Your task to perform on an android device: Open the stopwatch Image 0: 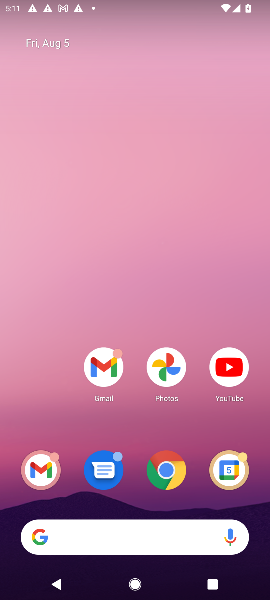
Step 0: drag from (140, 512) to (74, 58)
Your task to perform on an android device: Open the stopwatch Image 1: 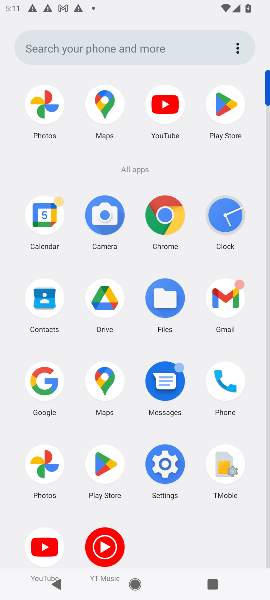
Step 1: click (226, 210)
Your task to perform on an android device: Open the stopwatch Image 2: 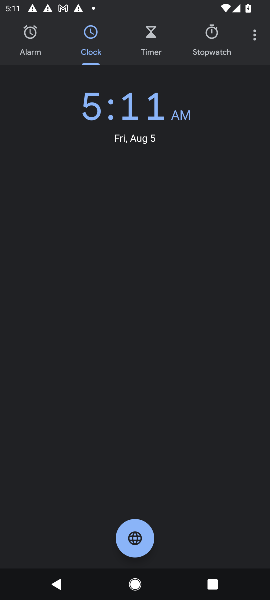
Step 2: click (209, 35)
Your task to perform on an android device: Open the stopwatch Image 3: 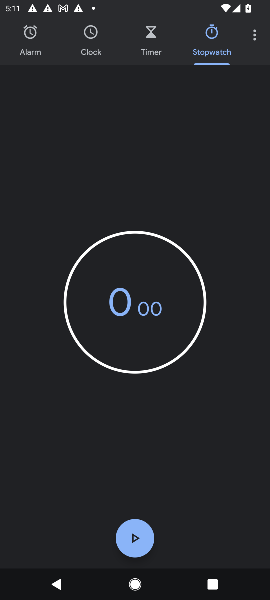
Step 3: task complete